Your task to perform on an android device: change notification settings in the gmail app Image 0: 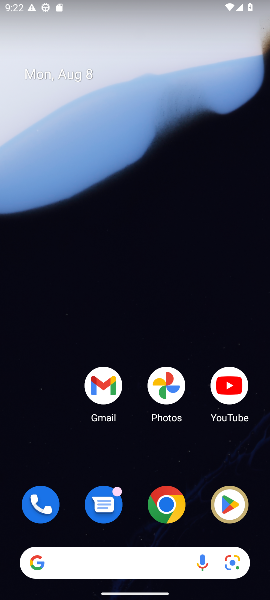
Step 0: click (106, 405)
Your task to perform on an android device: change notification settings in the gmail app Image 1: 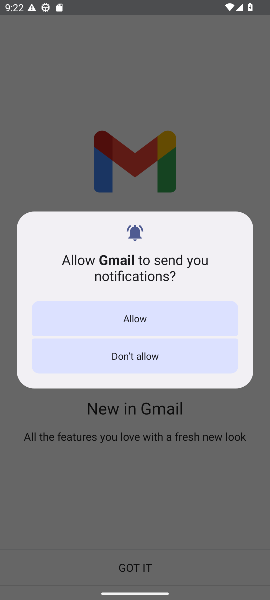
Step 1: click (147, 314)
Your task to perform on an android device: change notification settings in the gmail app Image 2: 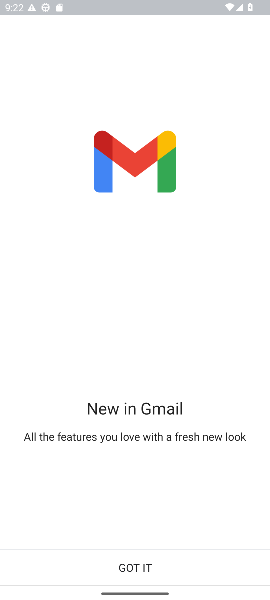
Step 2: click (155, 565)
Your task to perform on an android device: change notification settings in the gmail app Image 3: 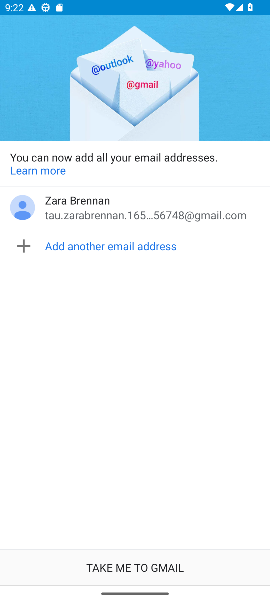
Step 3: click (146, 562)
Your task to perform on an android device: change notification settings in the gmail app Image 4: 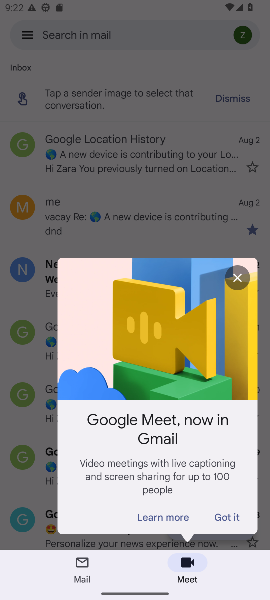
Step 4: click (236, 268)
Your task to perform on an android device: change notification settings in the gmail app Image 5: 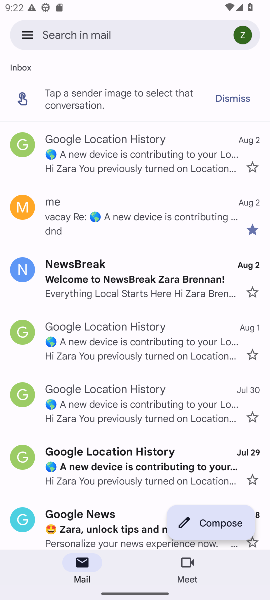
Step 5: click (25, 39)
Your task to perform on an android device: change notification settings in the gmail app Image 6: 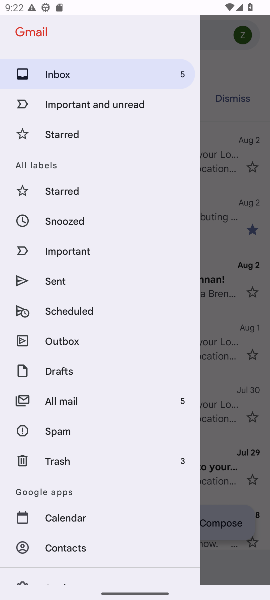
Step 6: drag from (74, 529) to (83, 319)
Your task to perform on an android device: change notification settings in the gmail app Image 7: 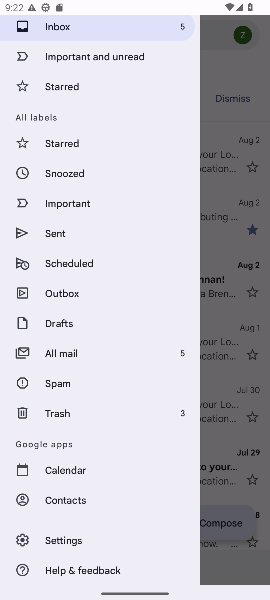
Step 7: click (72, 543)
Your task to perform on an android device: change notification settings in the gmail app Image 8: 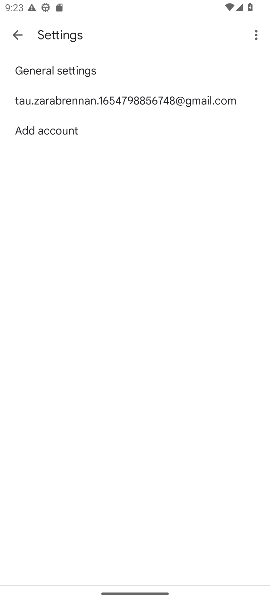
Step 8: click (62, 66)
Your task to perform on an android device: change notification settings in the gmail app Image 9: 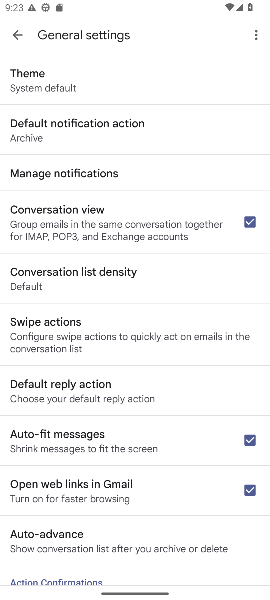
Step 9: click (74, 173)
Your task to perform on an android device: change notification settings in the gmail app Image 10: 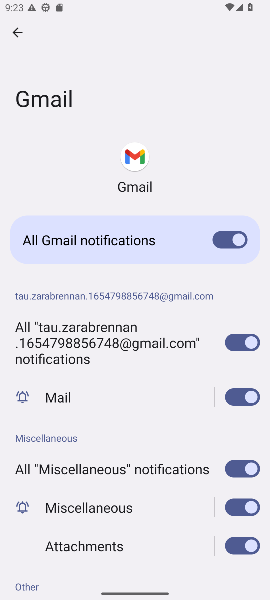
Step 10: click (221, 241)
Your task to perform on an android device: change notification settings in the gmail app Image 11: 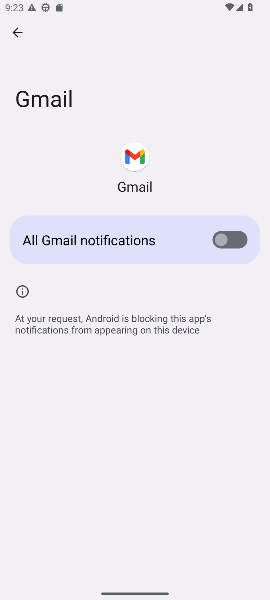
Step 11: task complete